Your task to perform on an android device: change keyboard looks Image 0: 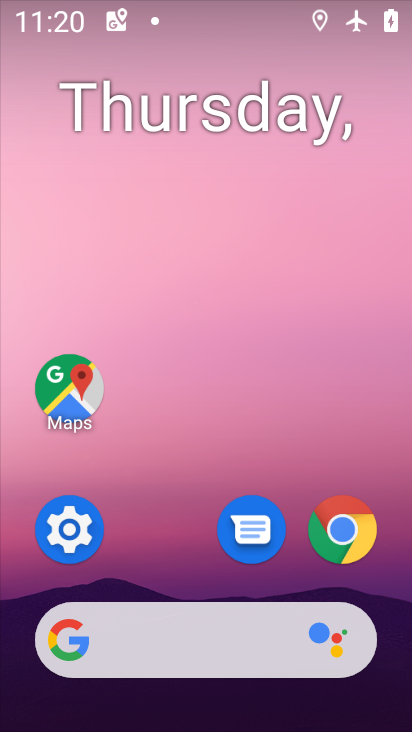
Step 0: drag from (227, 675) to (259, 154)
Your task to perform on an android device: change keyboard looks Image 1: 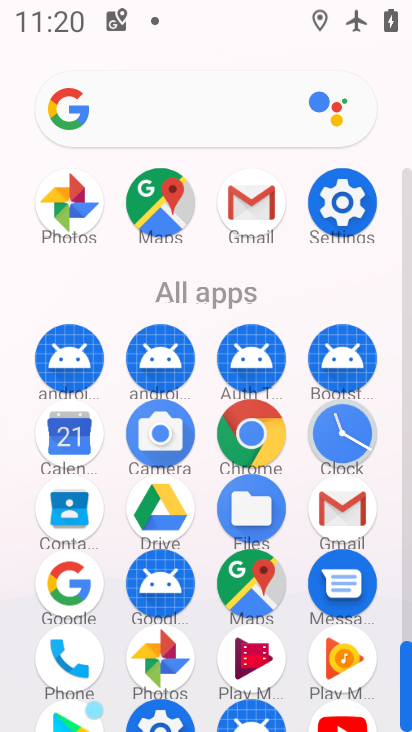
Step 1: click (344, 197)
Your task to perform on an android device: change keyboard looks Image 2: 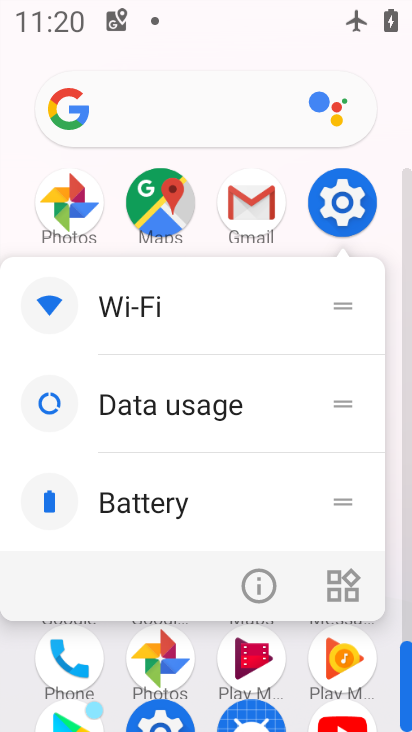
Step 2: click (342, 174)
Your task to perform on an android device: change keyboard looks Image 3: 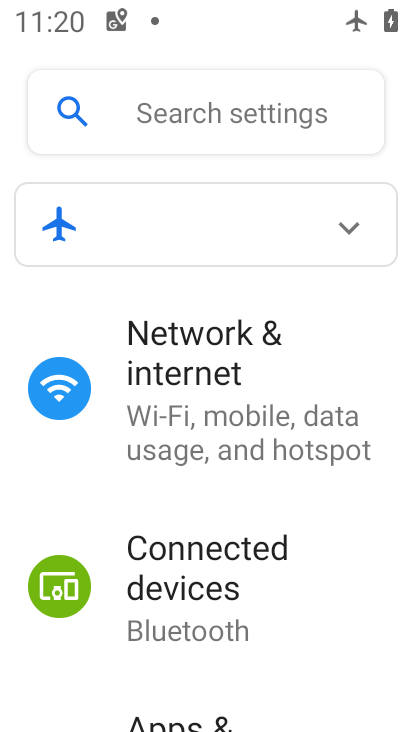
Step 3: drag from (292, 619) to (245, 16)
Your task to perform on an android device: change keyboard looks Image 4: 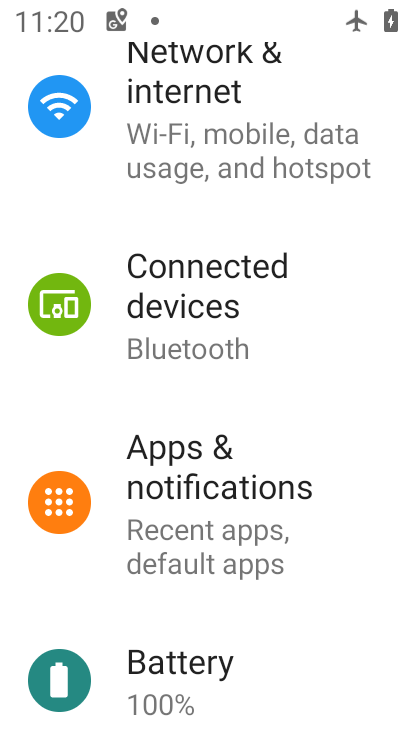
Step 4: drag from (240, 611) to (196, 5)
Your task to perform on an android device: change keyboard looks Image 5: 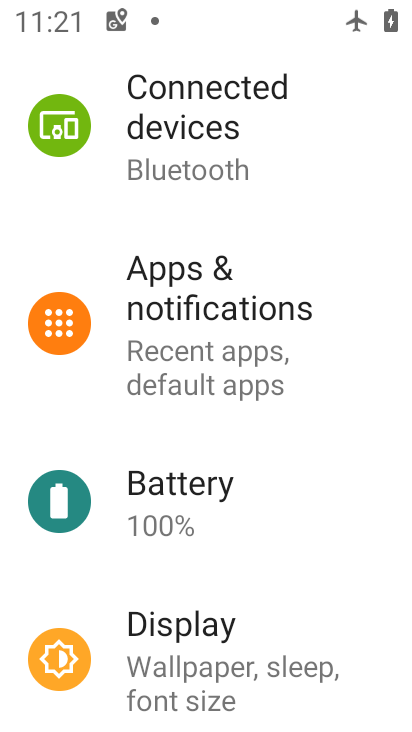
Step 5: drag from (327, 688) to (247, 66)
Your task to perform on an android device: change keyboard looks Image 6: 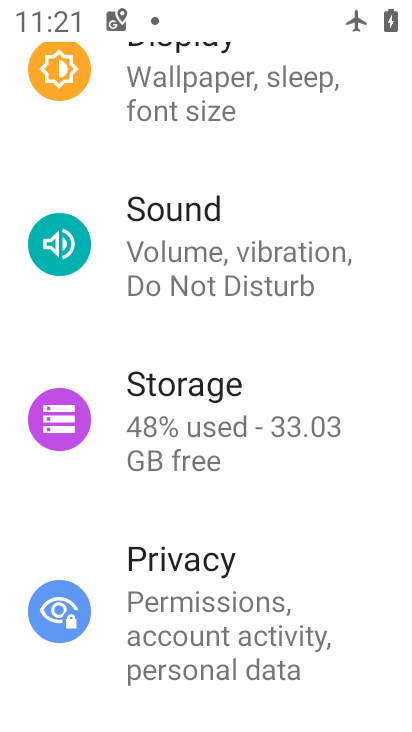
Step 6: drag from (333, 678) to (235, 19)
Your task to perform on an android device: change keyboard looks Image 7: 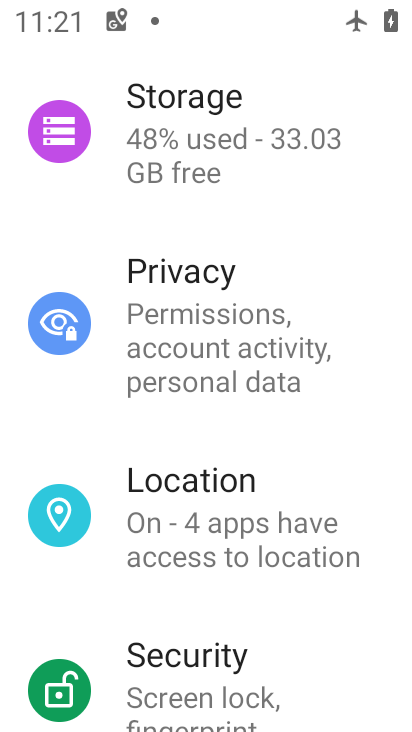
Step 7: drag from (294, 690) to (199, 62)
Your task to perform on an android device: change keyboard looks Image 8: 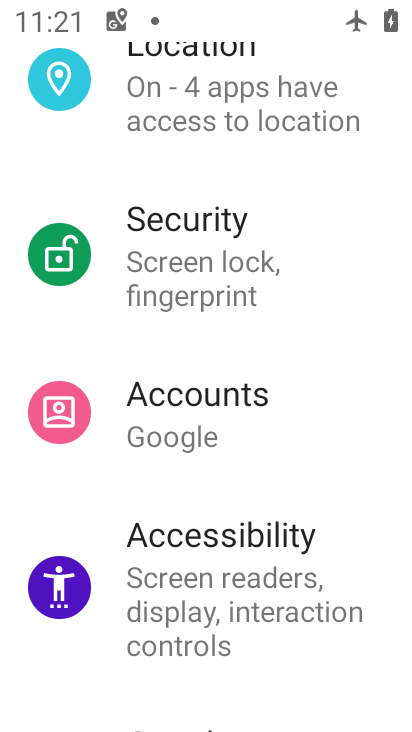
Step 8: drag from (229, 681) to (226, 43)
Your task to perform on an android device: change keyboard looks Image 9: 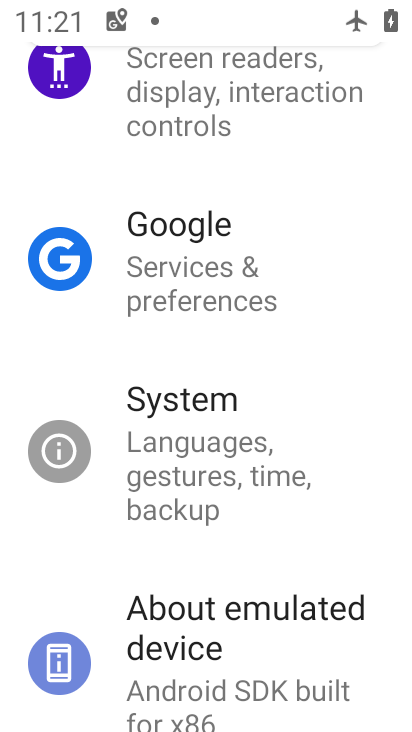
Step 9: click (150, 451)
Your task to perform on an android device: change keyboard looks Image 10: 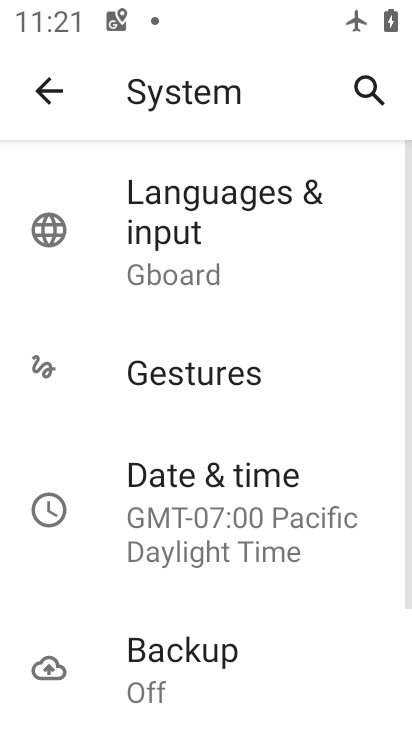
Step 10: click (196, 222)
Your task to perform on an android device: change keyboard looks Image 11: 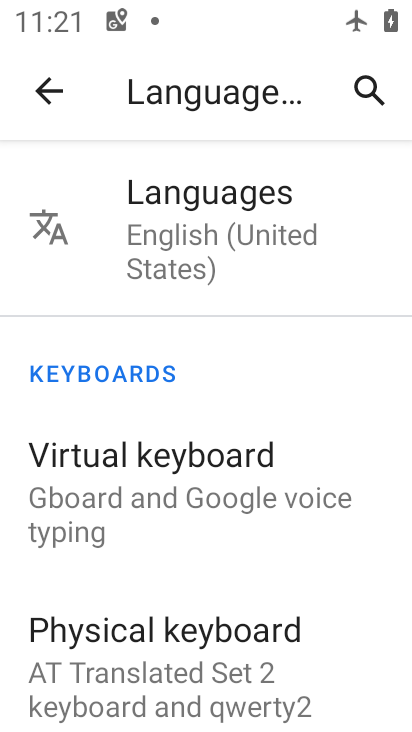
Step 11: click (194, 487)
Your task to perform on an android device: change keyboard looks Image 12: 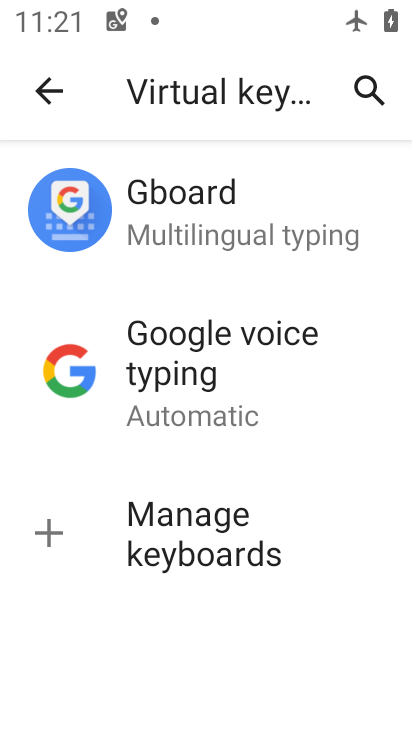
Step 12: click (277, 197)
Your task to perform on an android device: change keyboard looks Image 13: 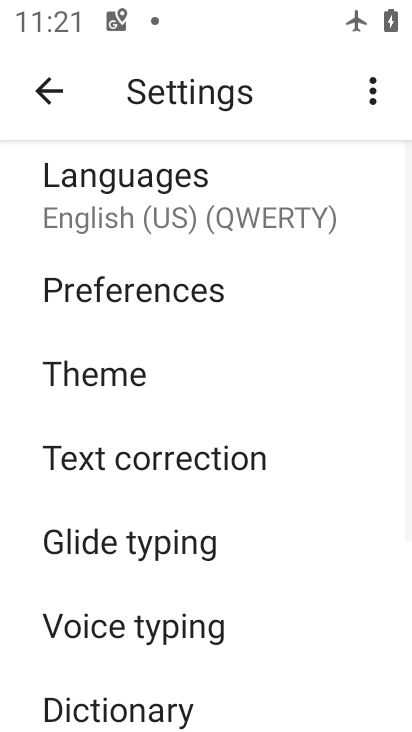
Step 13: click (117, 377)
Your task to perform on an android device: change keyboard looks Image 14: 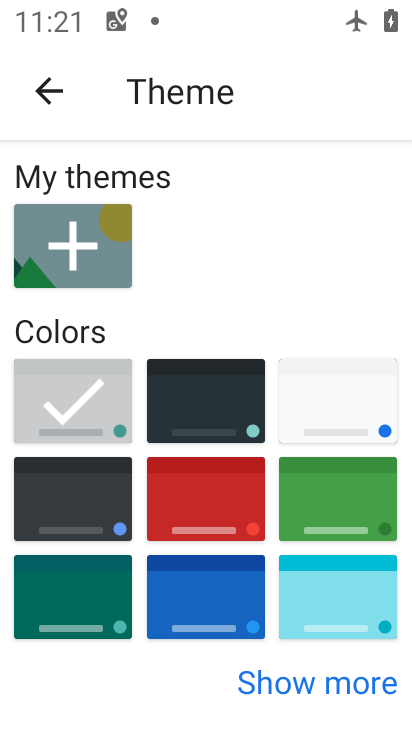
Step 14: click (202, 504)
Your task to perform on an android device: change keyboard looks Image 15: 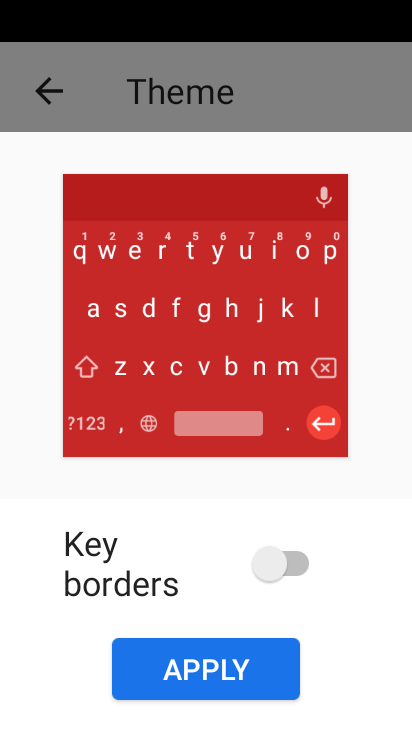
Step 15: click (219, 671)
Your task to perform on an android device: change keyboard looks Image 16: 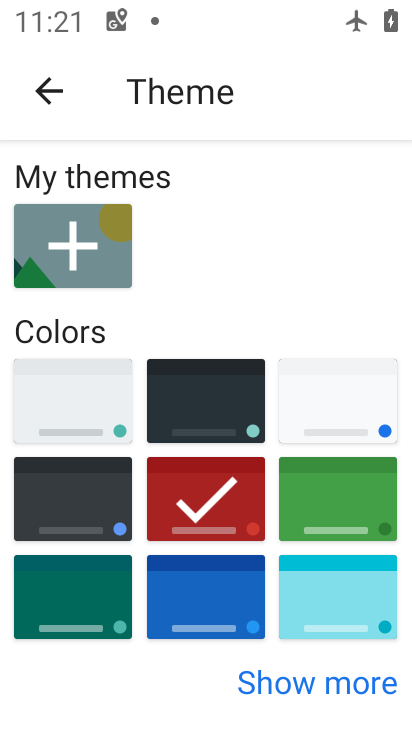
Step 16: task complete